Your task to perform on an android device: Go to CNN.com Image 0: 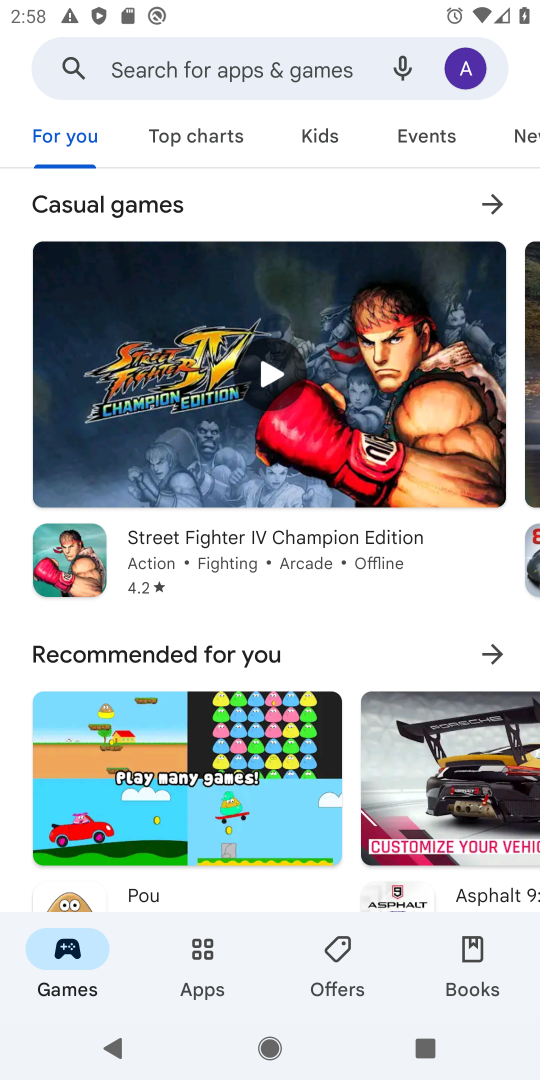
Step 0: press home button
Your task to perform on an android device: Go to CNN.com Image 1: 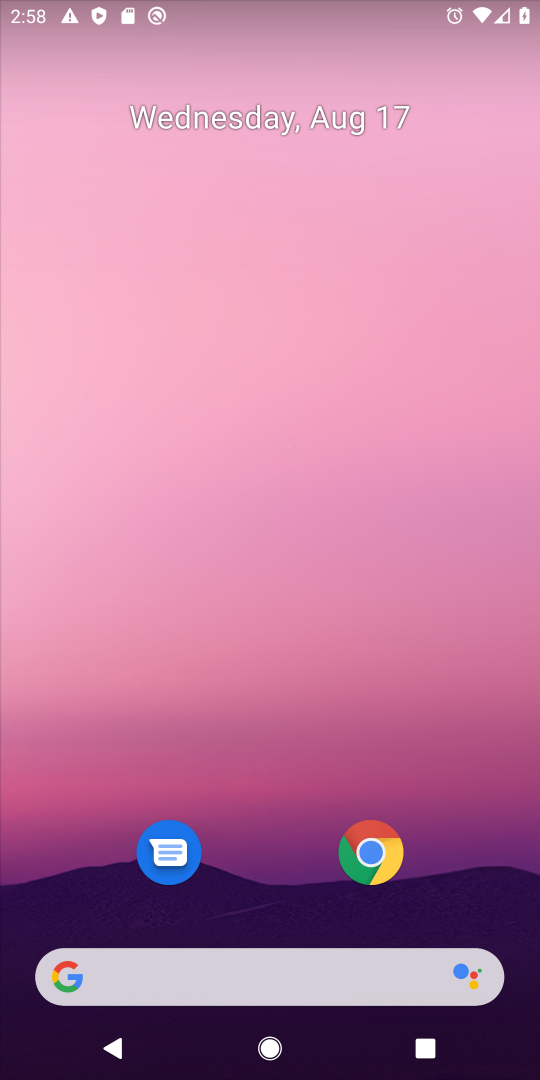
Step 1: drag from (293, 687) to (340, 40)
Your task to perform on an android device: Go to CNN.com Image 2: 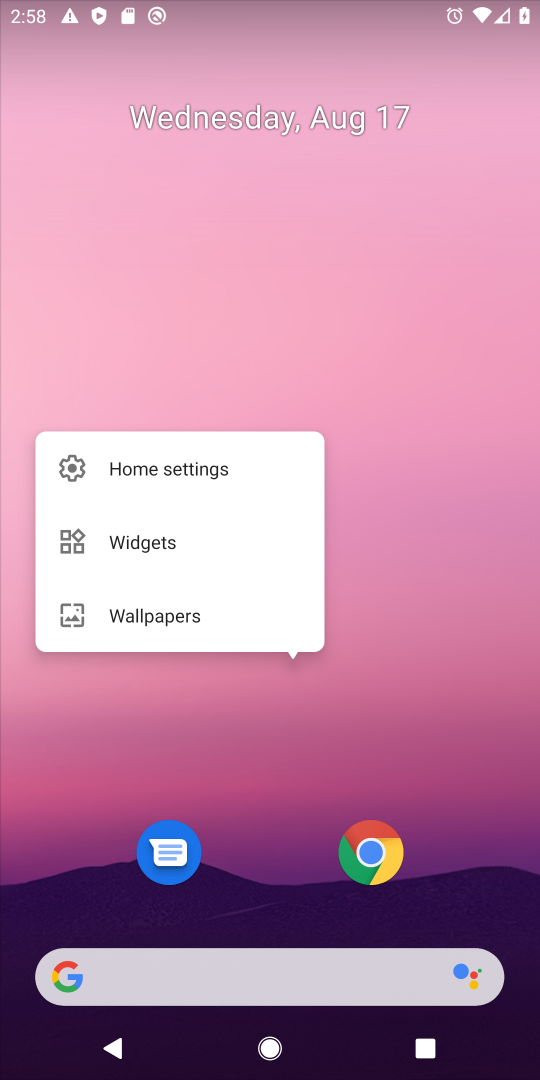
Step 2: click (282, 831)
Your task to perform on an android device: Go to CNN.com Image 3: 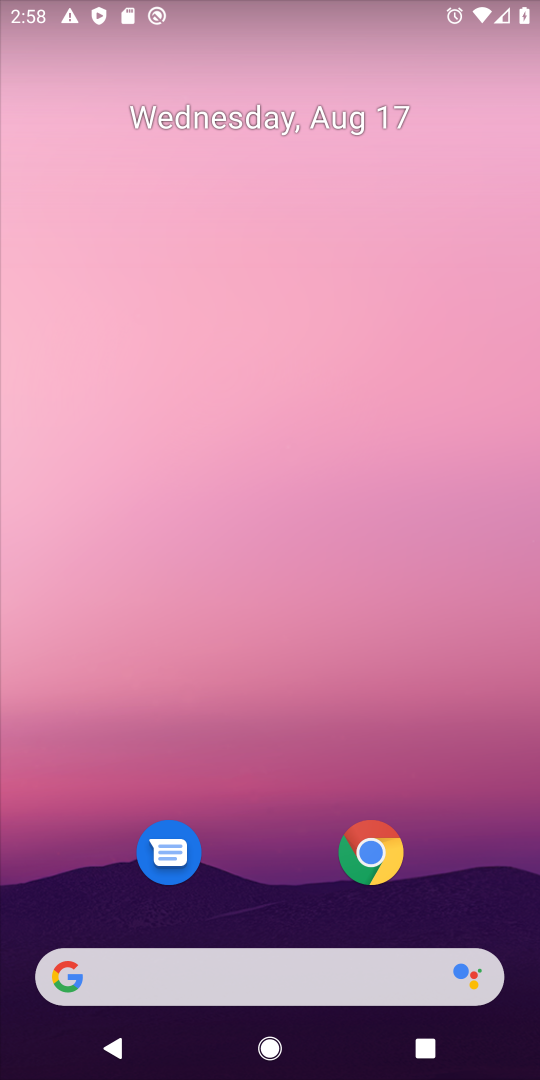
Step 3: drag from (255, 872) to (311, 101)
Your task to perform on an android device: Go to CNN.com Image 4: 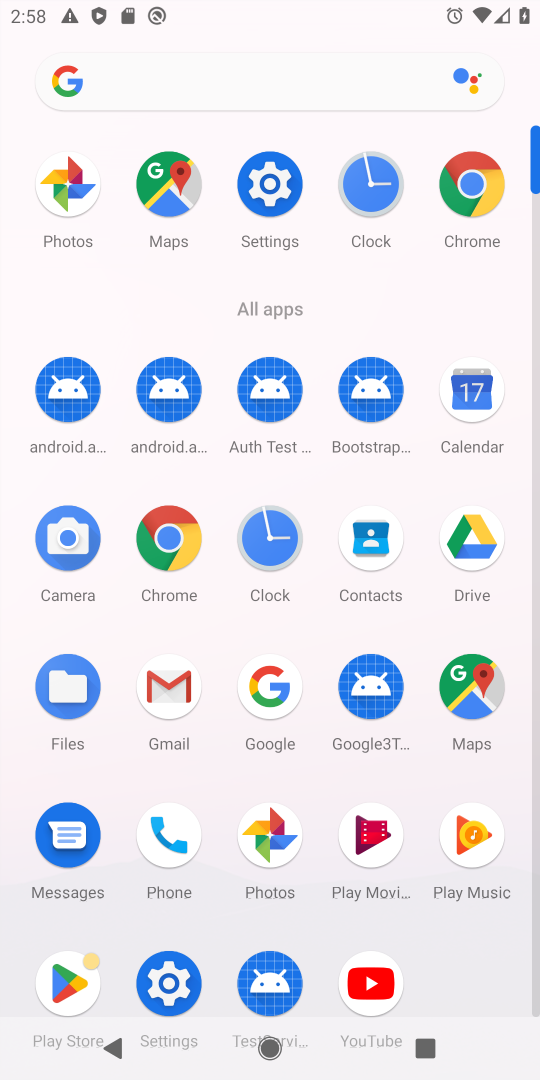
Step 4: click (166, 530)
Your task to perform on an android device: Go to CNN.com Image 5: 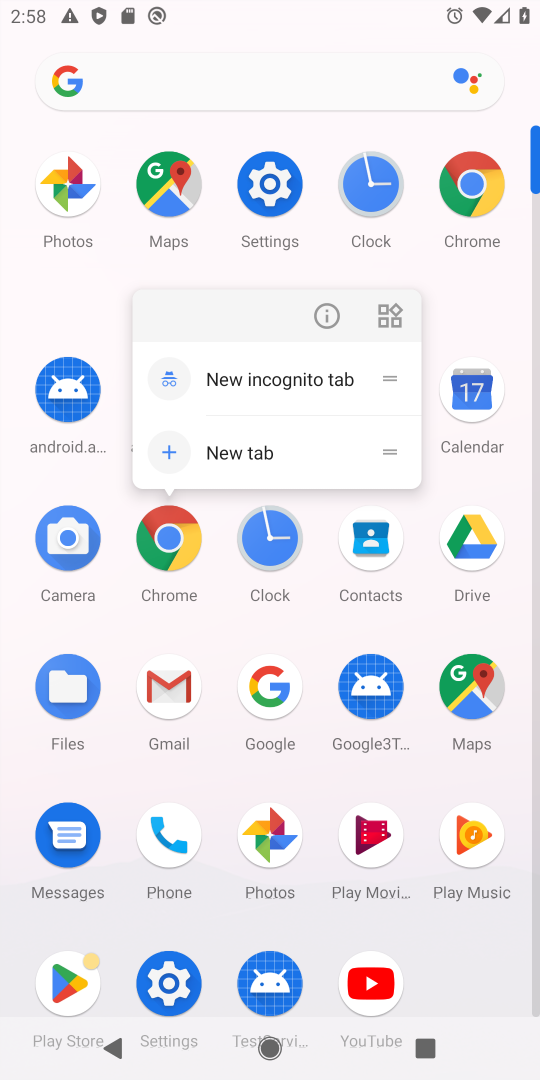
Step 5: click (167, 537)
Your task to perform on an android device: Go to CNN.com Image 6: 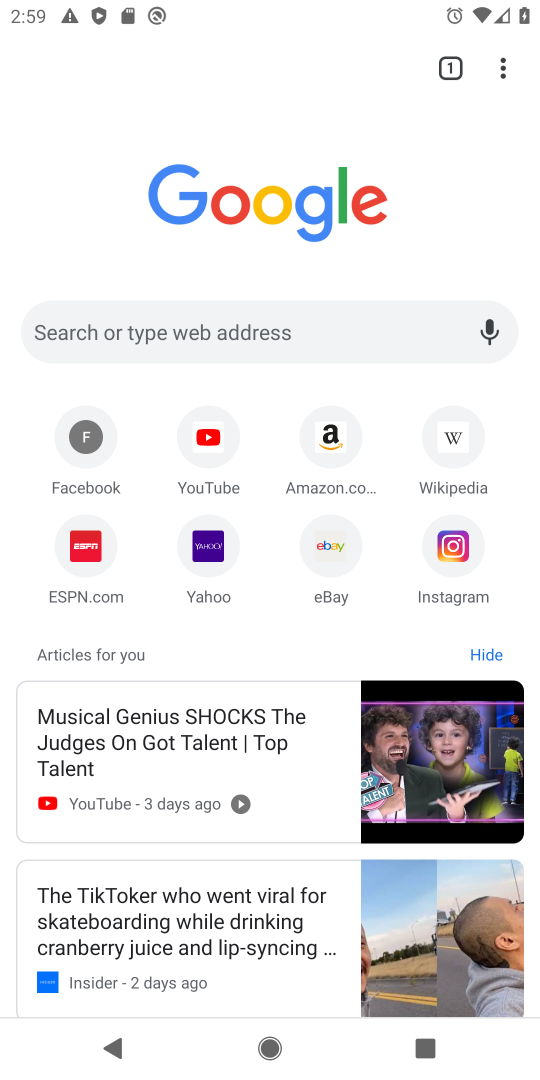
Step 6: click (262, 320)
Your task to perform on an android device: Go to CNN.com Image 7: 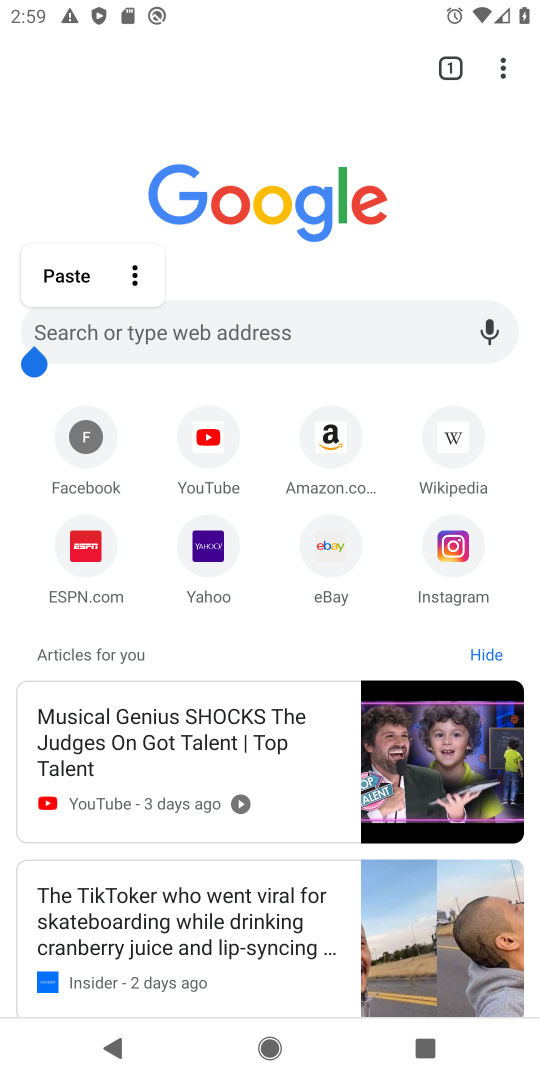
Step 7: click (262, 323)
Your task to perform on an android device: Go to CNN.com Image 8: 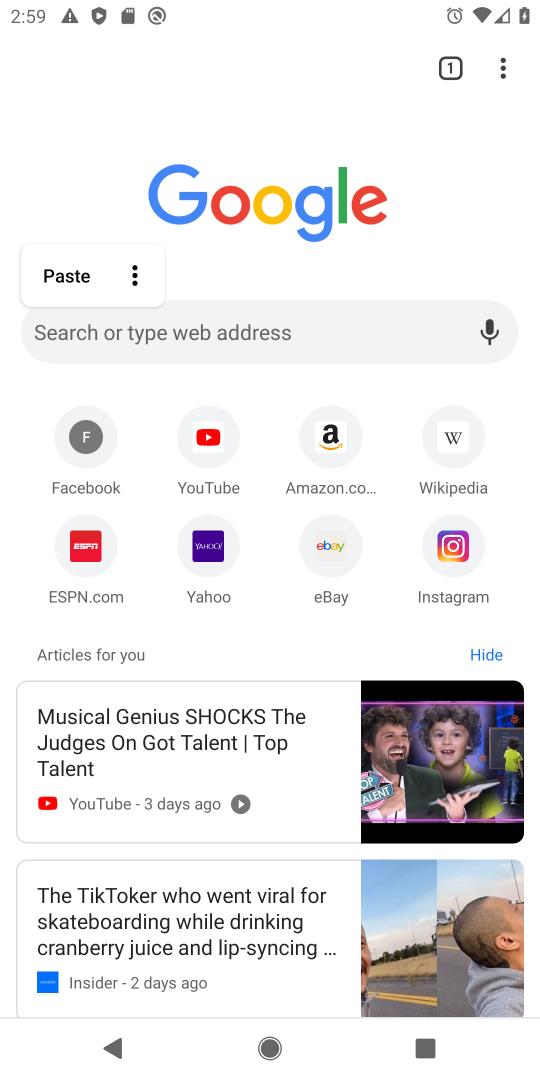
Step 8: click (266, 330)
Your task to perform on an android device: Go to CNN.com Image 9: 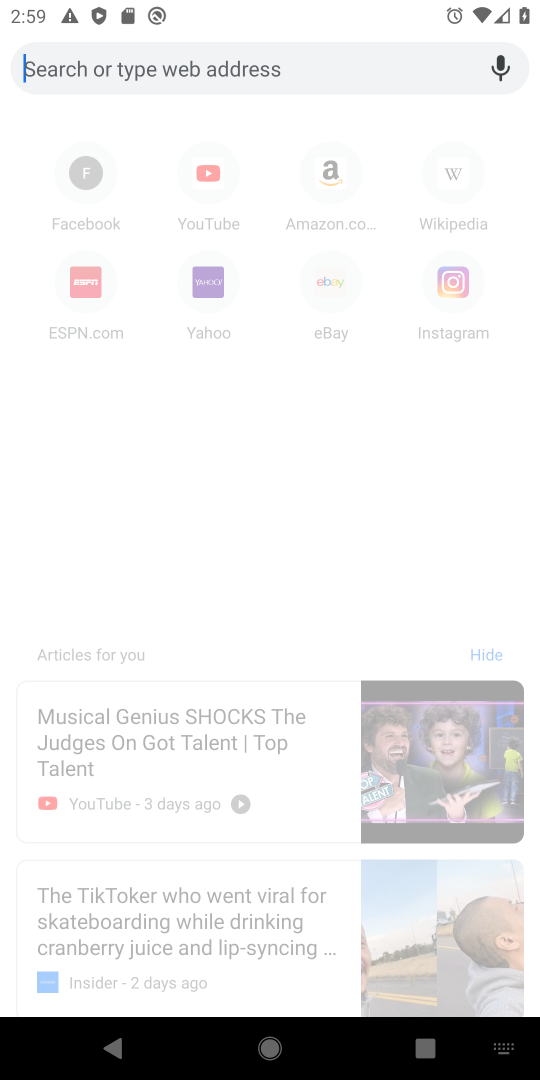
Step 9: type "cnn.com"
Your task to perform on an android device: Go to CNN.com Image 10: 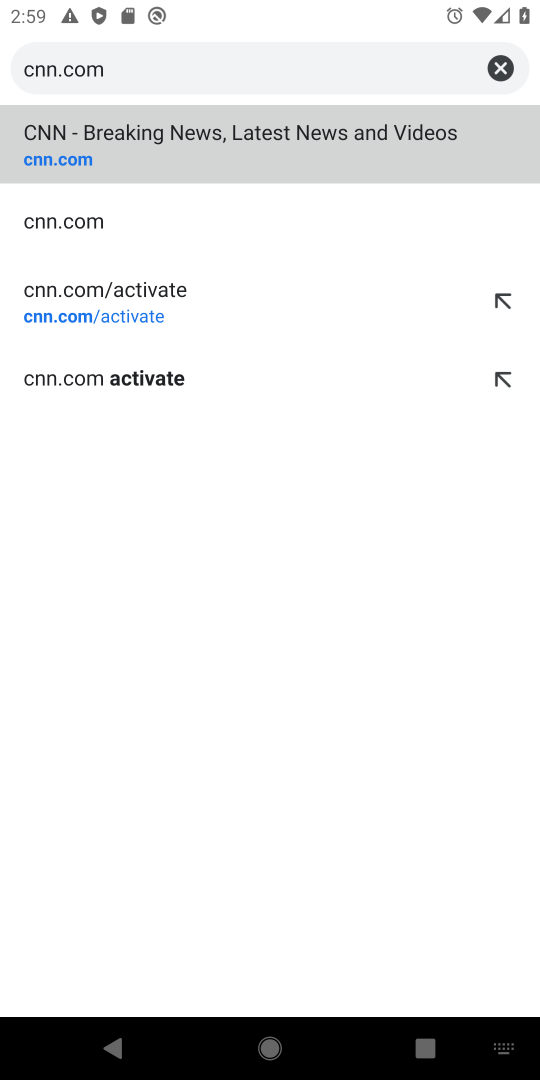
Step 10: click (43, 145)
Your task to perform on an android device: Go to CNN.com Image 11: 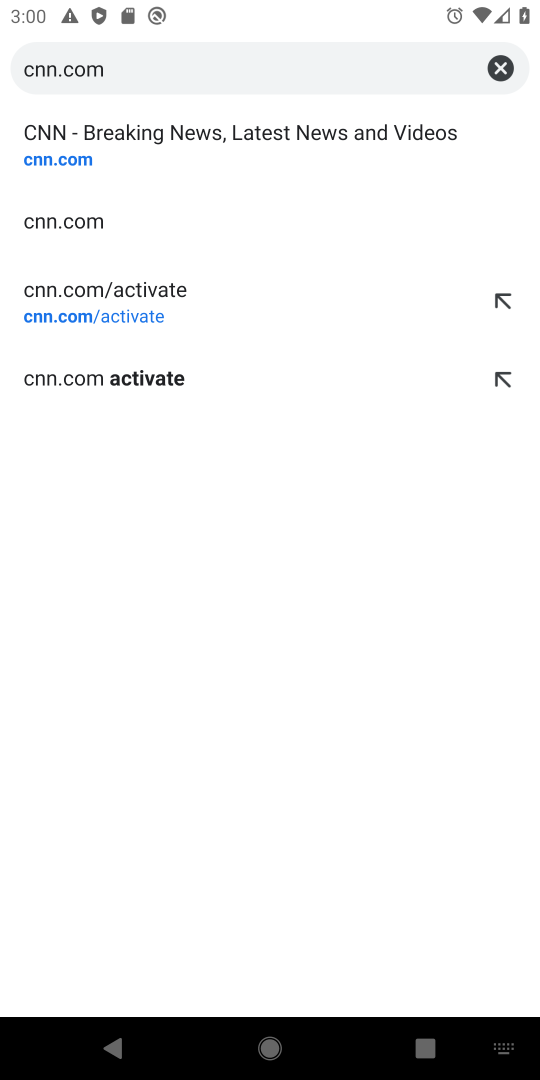
Step 11: click (62, 150)
Your task to perform on an android device: Go to CNN.com Image 12: 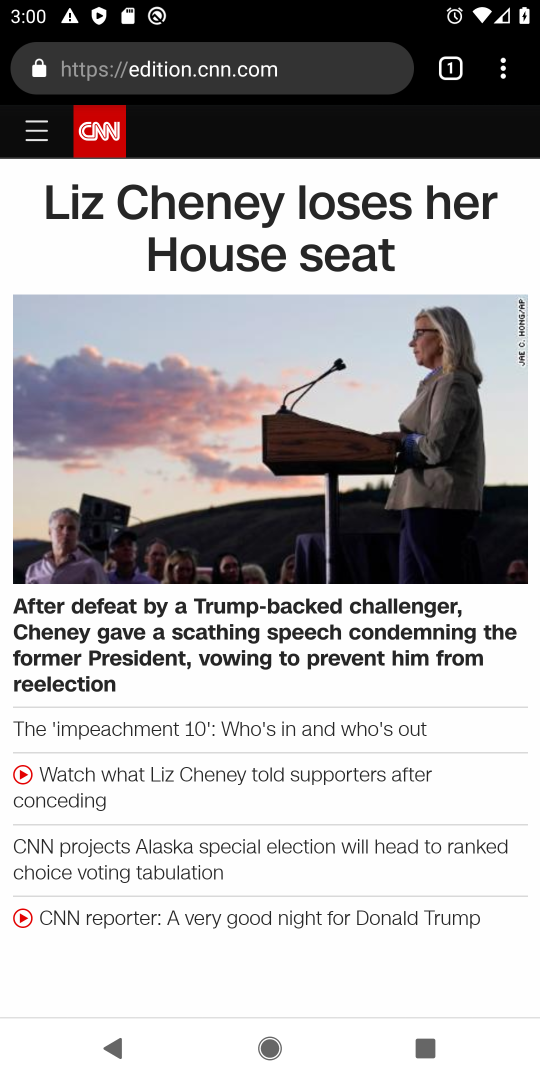
Step 12: task complete